Your task to perform on an android device: Open CNN.com Image 0: 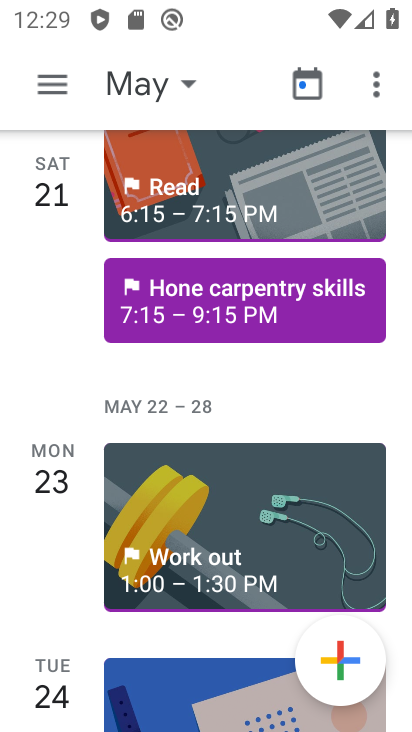
Step 0: press home button
Your task to perform on an android device: Open CNN.com Image 1: 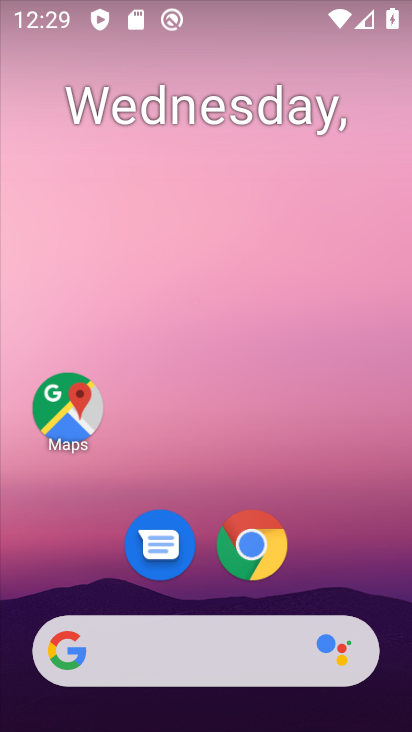
Step 1: click (267, 543)
Your task to perform on an android device: Open CNN.com Image 2: 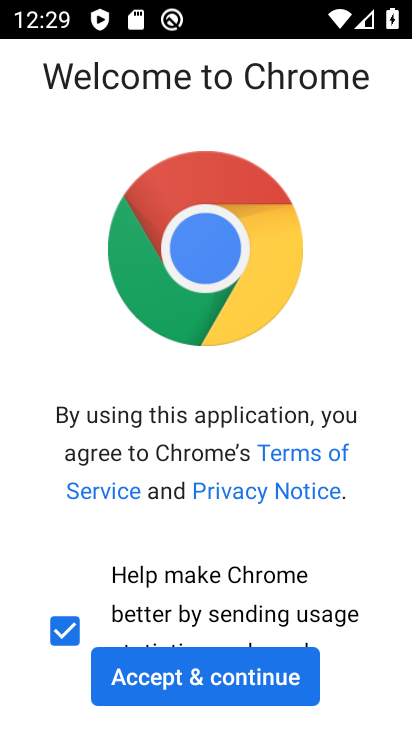
Step 2: click (250, 668)
Your task to perform on an android device: Open CNN.com Image 3: 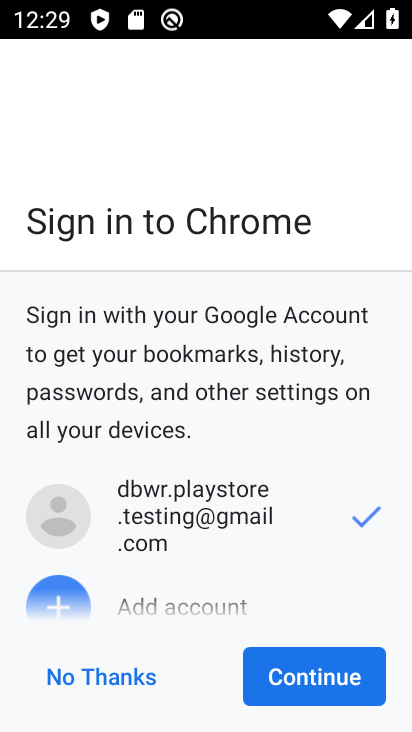
Step 3: click (278, 671)
Your task to perform on an android device: Open CNN.com Image 4: 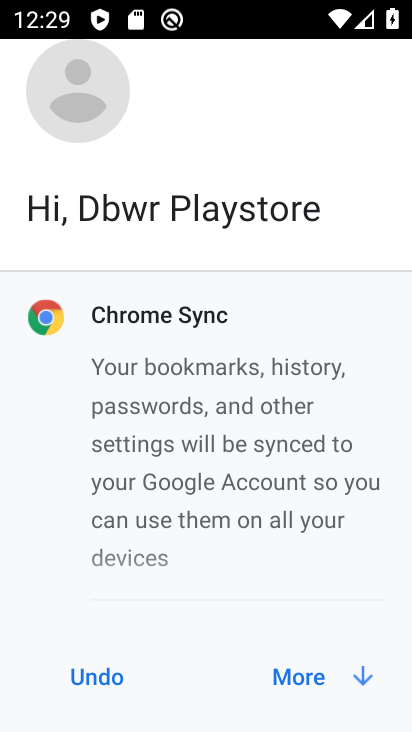
Step 4: click (322, 667)
Your task to perform on an android device: Open CNN.com Image 5: 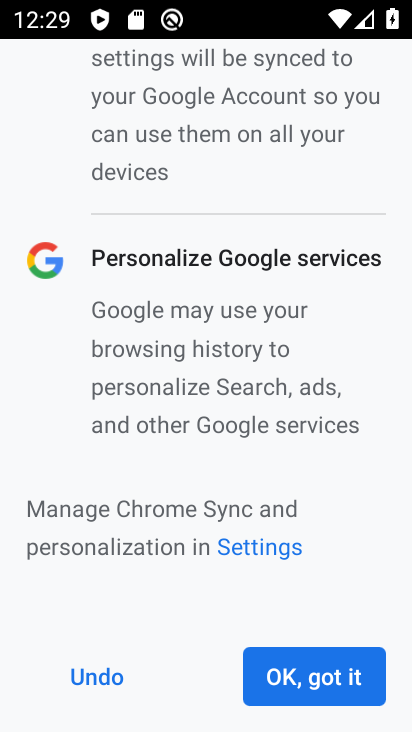
Step 5: click (323, 667)
Your task to perform on an android device: Open CNN.com Image 6: 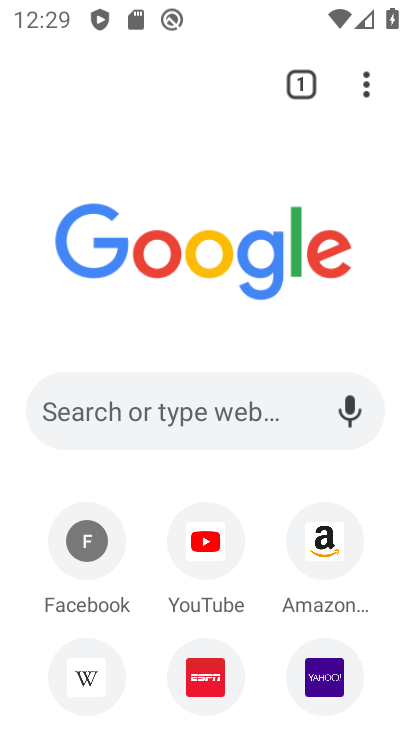
Step 6: click (233, 402)
Your task to perform on an android device: Open CNN.com Image 7: 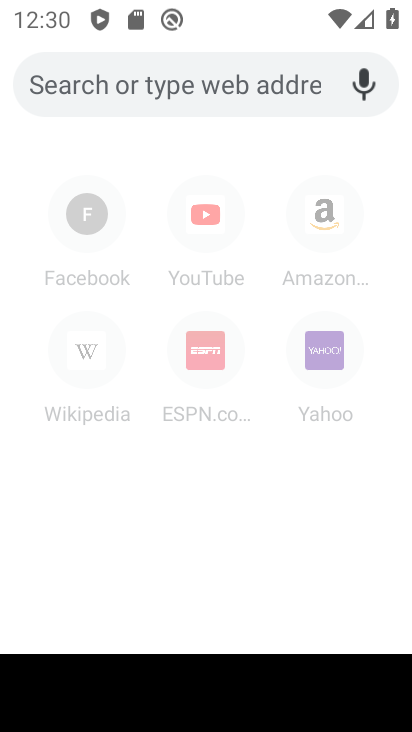
Step 7: type "cnn.com"
Your task to perform on an android device: Open CNN.com Image 8: 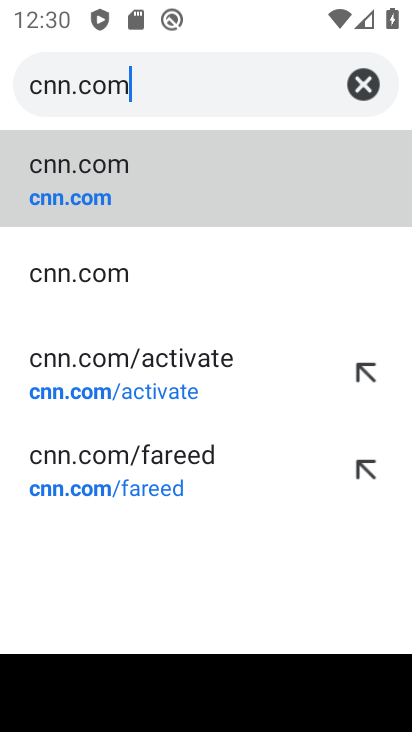
Step 8: click (215, 184)
Your task to perform on an android device: Open CNN.com Image 9: 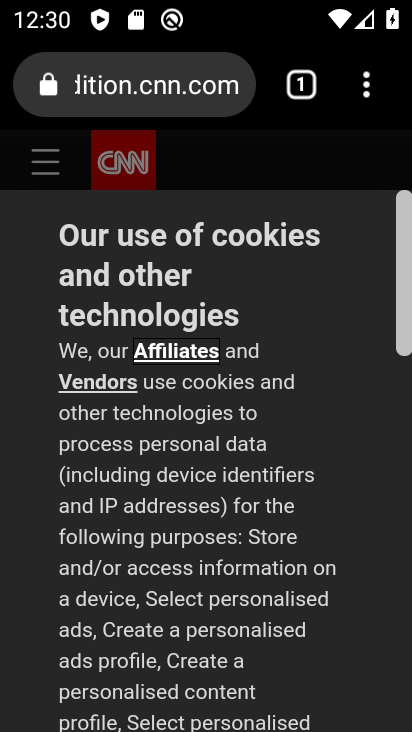
Step 9: task complete